Your task to perform on an android device: turn on the 12-hour format for clock Image 0: 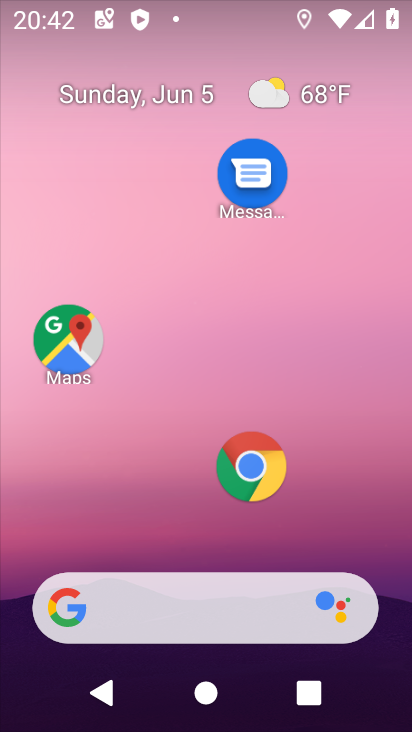
Step 0: click (223, 203)
Your task to perform on an android device: turn on the 12-hour format for clock Image 1: 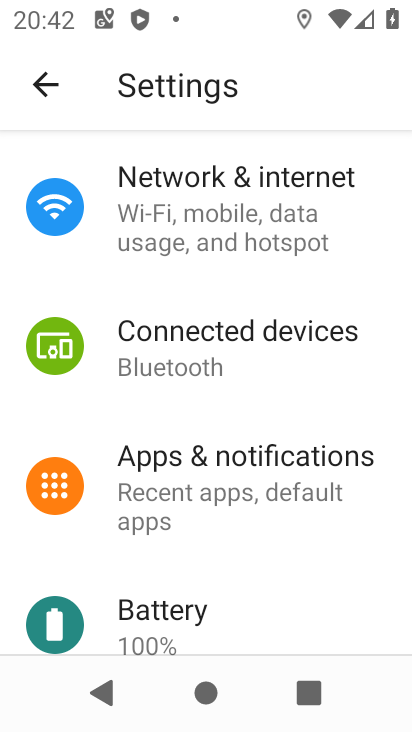
Step 1: press home button
Your task to perform on an android device: turn on the 12-hour format for clock Image 2: 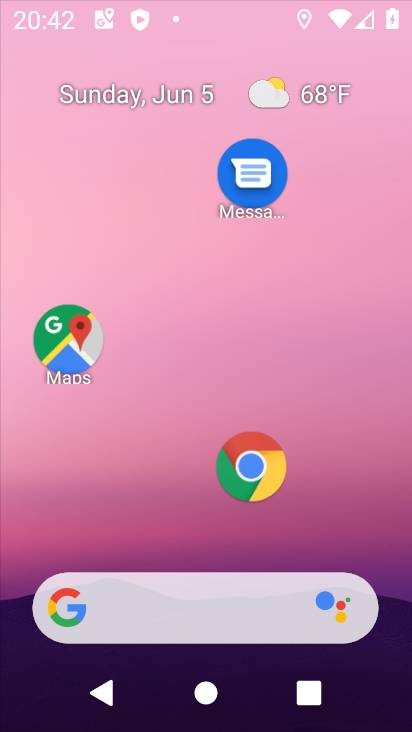
Step 2: drag from (249, 464) to (249, 204)
Your task to perform on an android device: turn on the 12-hour format for clock Image 3: 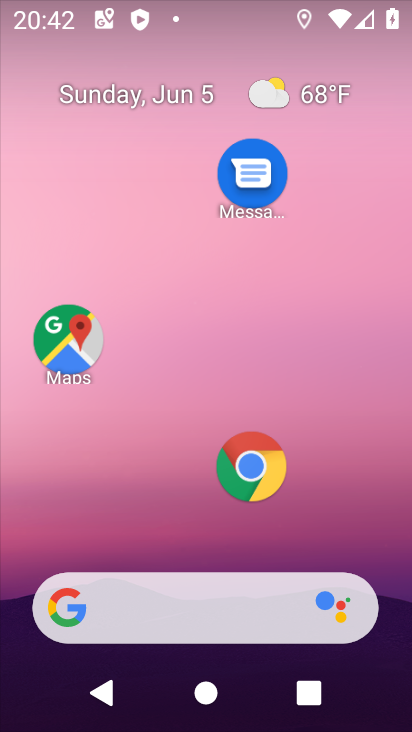
Step 3: drag from (184, 353) to (215, 120)
Your task to perform on an android device: turn on the 12-hour format for clock Image 4: 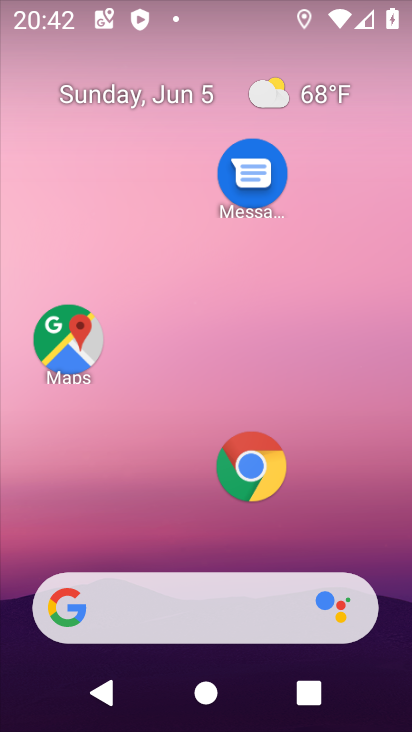
Step 4: drag from (230, 492) to (277, 0)
Your task to perform on an android device: turn on the 12-hour format for clock Image 5: 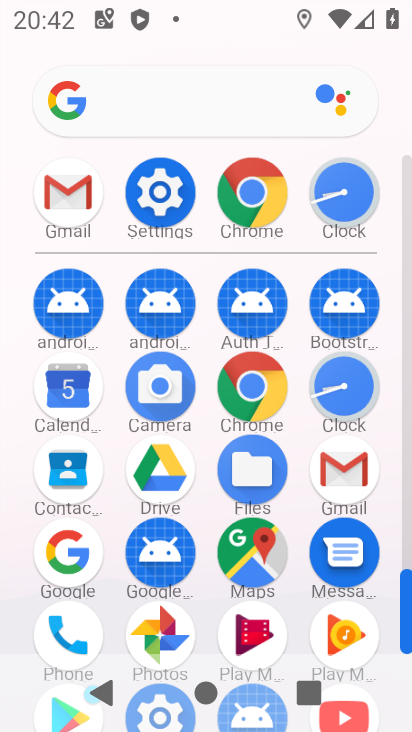
Step 5: drag from (206, 514) to (272, 89)
Your task to perform on an android device: turn on the 12-hour format for clock Image 6: 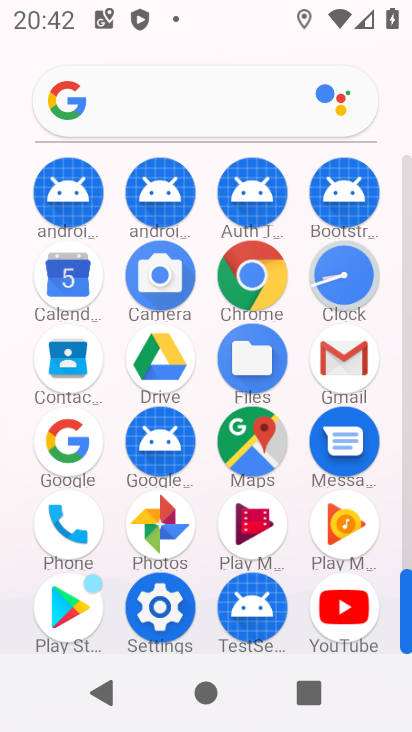
Step 6: click (342, 278)
Your task to perform on an android device: turn on the 12-hour format for clock Image 7: 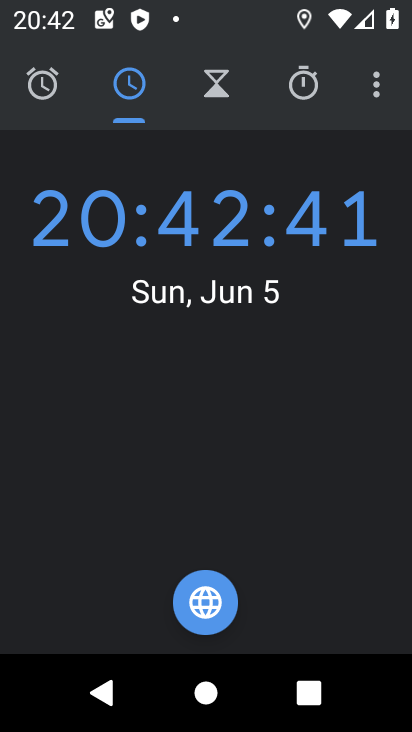
Step 7: click (369, 96)
Your task to perform on an android device: turn on the 12-hour format for clock Image 8: 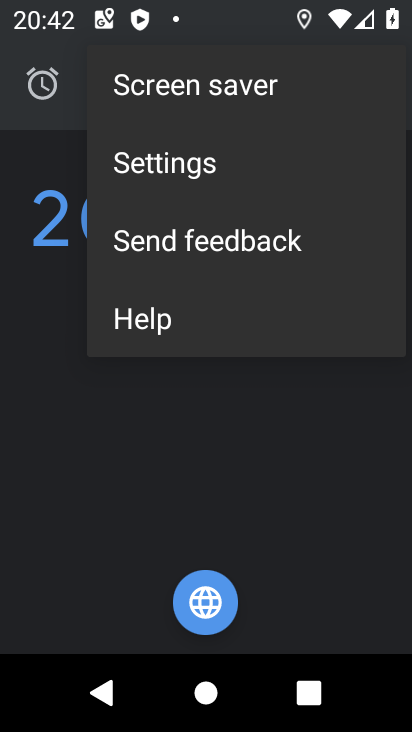
Step 8: click (280, 173)
Your task to perform on an android device: turn on the 12-hour format for clock Image 9: 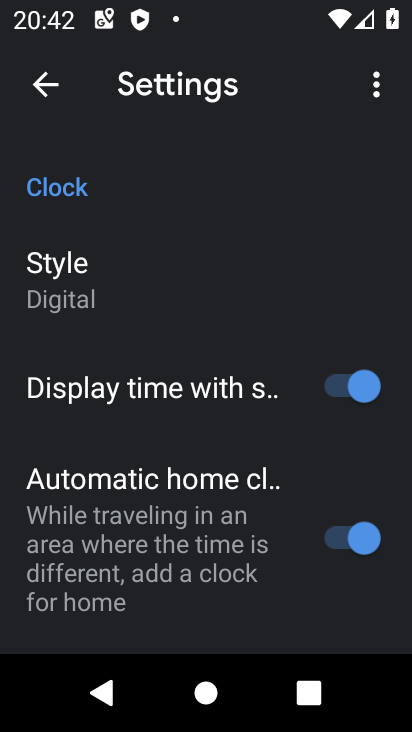
Step 9: drag from (220, 383) to (302, 77)
Your task to perform on an android device: turn on the 12-hour format for clock Image 10: 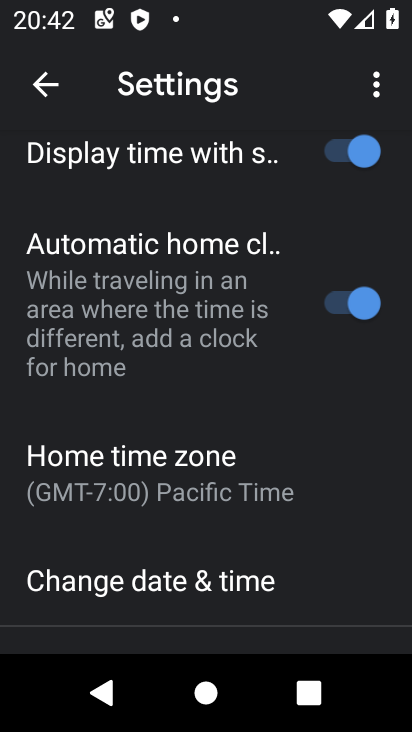
Step 10: drag from (252, 569) to (338, 157)
Your task to perform on an android device: turn on the 12-hour format for clock Image 11: 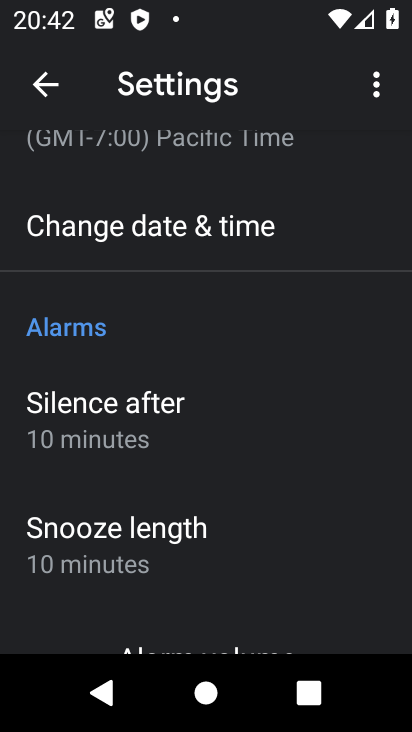
Step 11: click (228, 223)
Your task to perform on an android device: turn on the 12-hour format for clock Image 12: 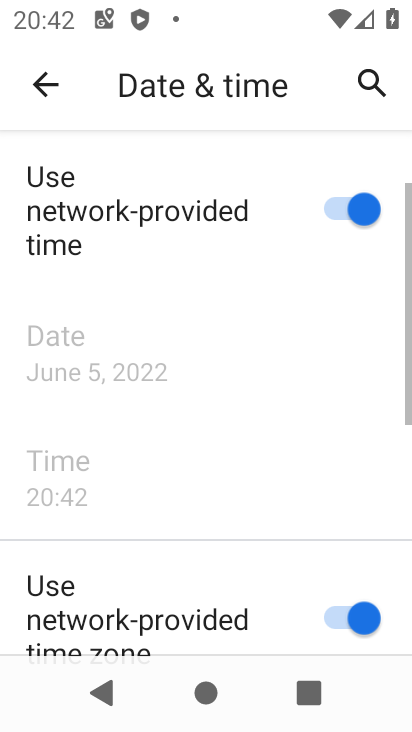
Step 12: drag from (238, 517) to (340, 4)
Your task to perform on an android device: turn on the 12-hour format for clock Image 13: 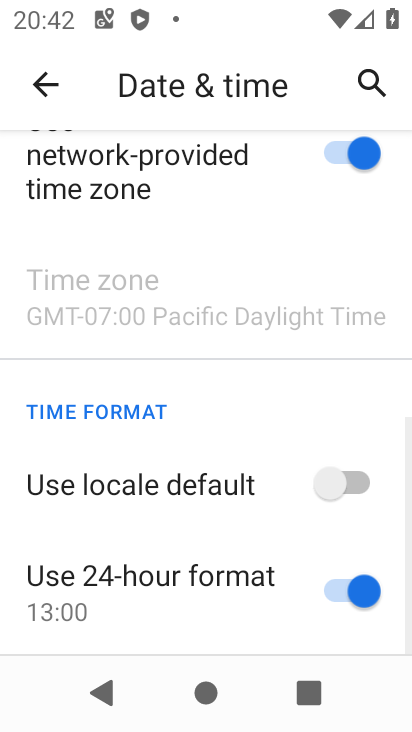
Step 13: drag from (260, 534) to (334, 103)
Your task to perform on an android device: turn on the 12-hour format for clock Image 14: 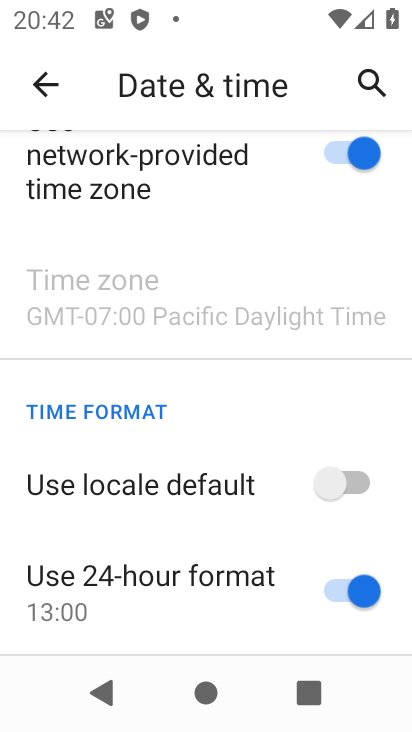
Step 14: click (340, 600)
Your task to perform on an android device: turn on the 12-hour format for clock Image 15: 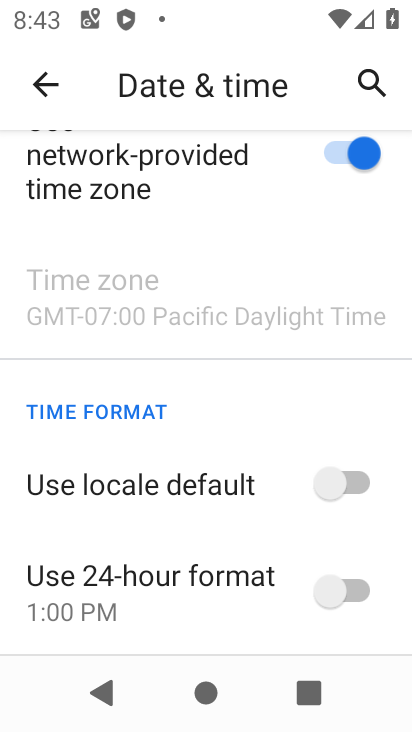
Step 15: task complete